Your task to perform on an android device: Show the shopping cart on target. Search for razer blade on target, select the first entry, and add it to the cart. Image 0: 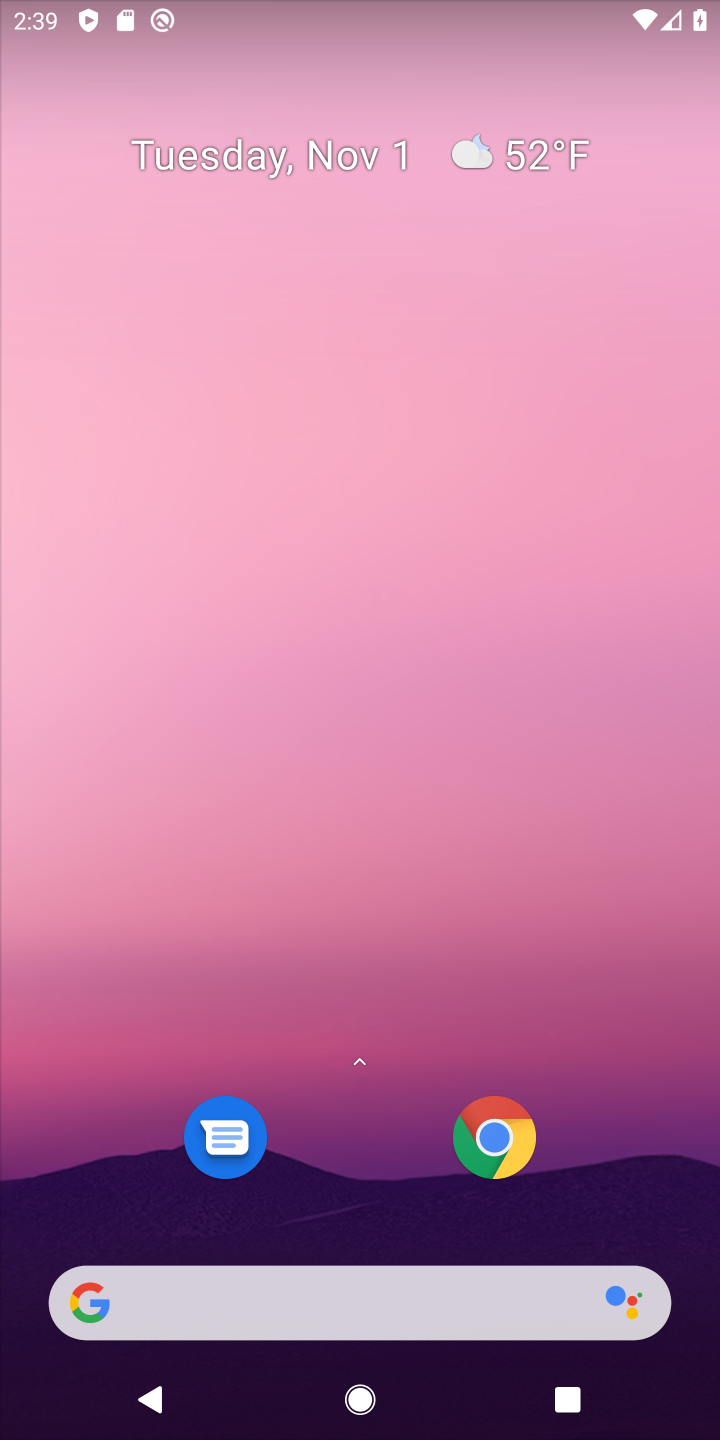
Step 0: click (402, 1273)
Your task to perform on an android device: Show the shopping cart on target. Search for razer blade on target, select the first entry, and add it to the cart. Image 1: 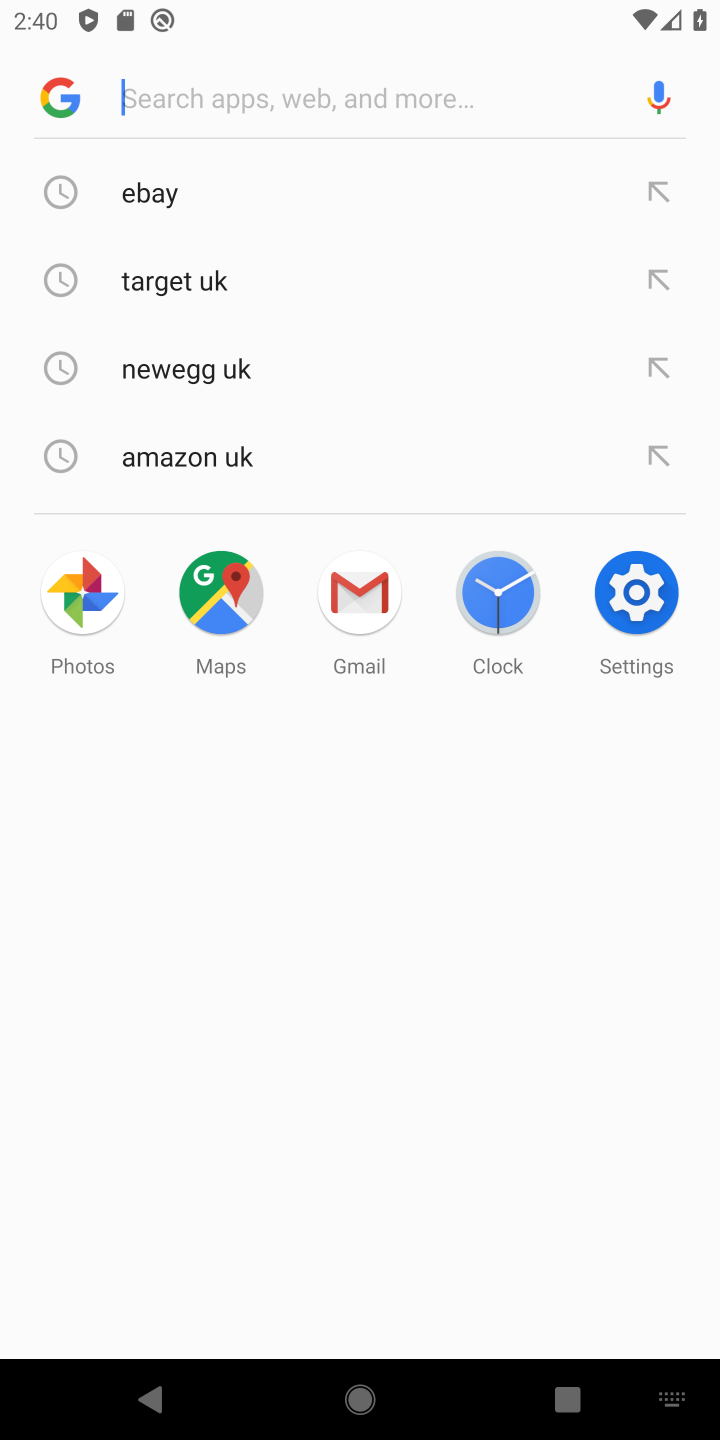
Step 1: type "target"
Your task to perform on an android device: Show the shopping cart on target. Search for razer blade on target, select the first entry, and add it to the cart. Image 2: 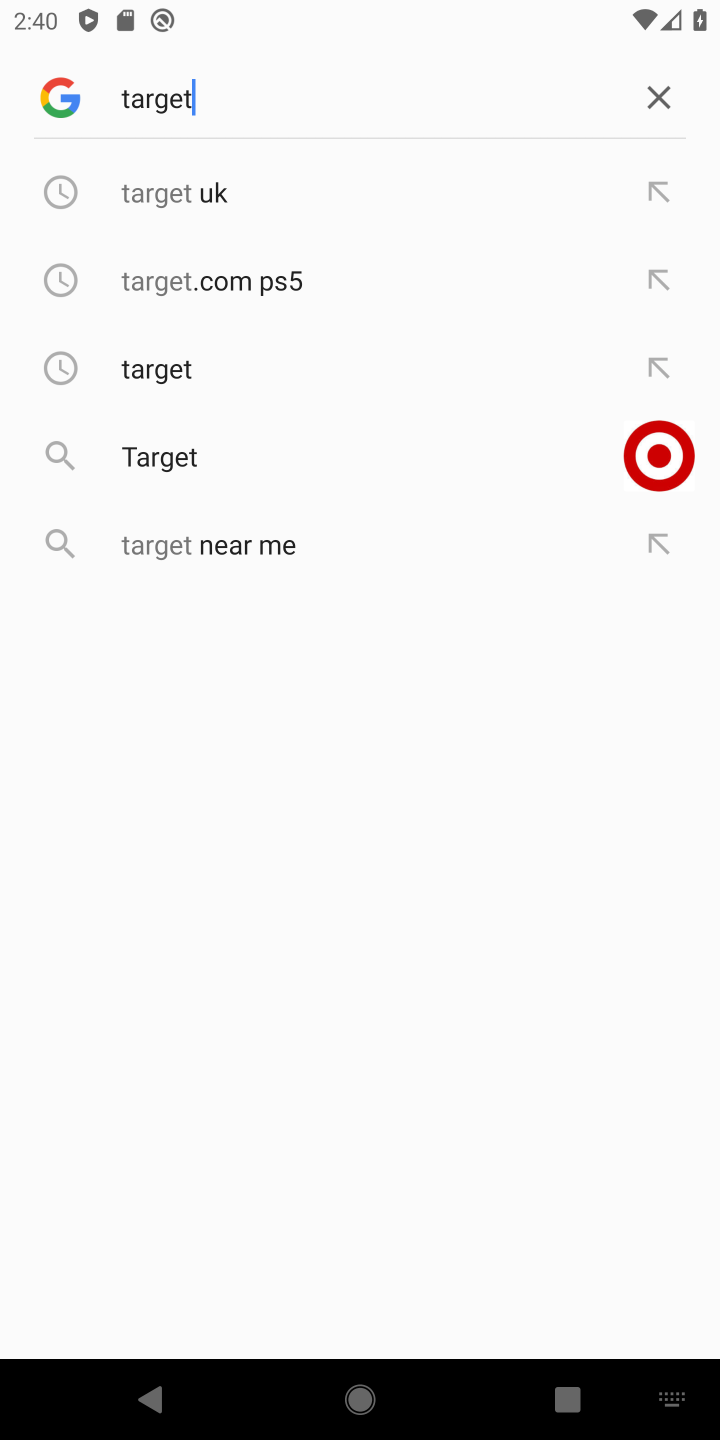
Step 2: click (170, 202)
Your task to perform on an android device: Show the shopping cart on target. Search for razer blade on target, select the first entry, and add it to the cart. Image 3: 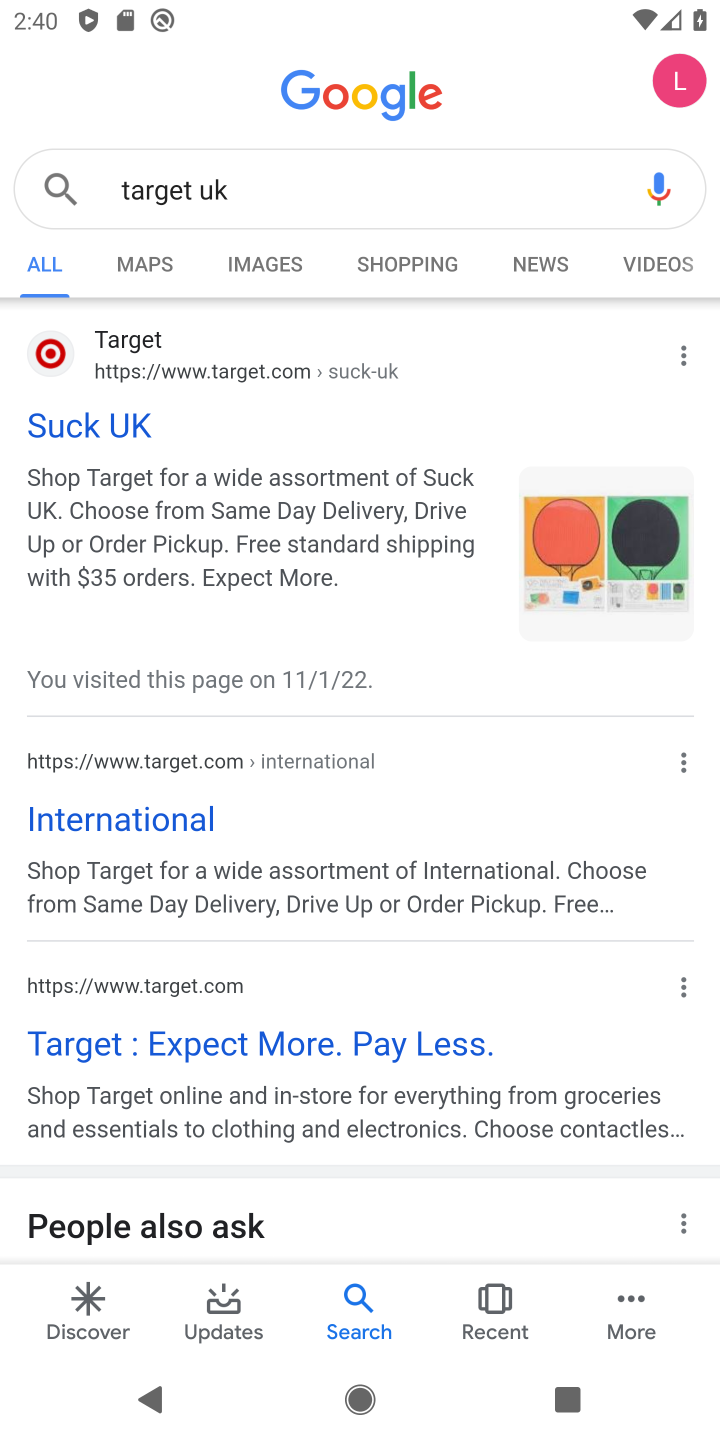
Step 3: click (101, 396)
Your task to perform on an android device: Show the shopping cart on target. Search for razer blade on target, select the first entry, and add it to the cart. Image 4: 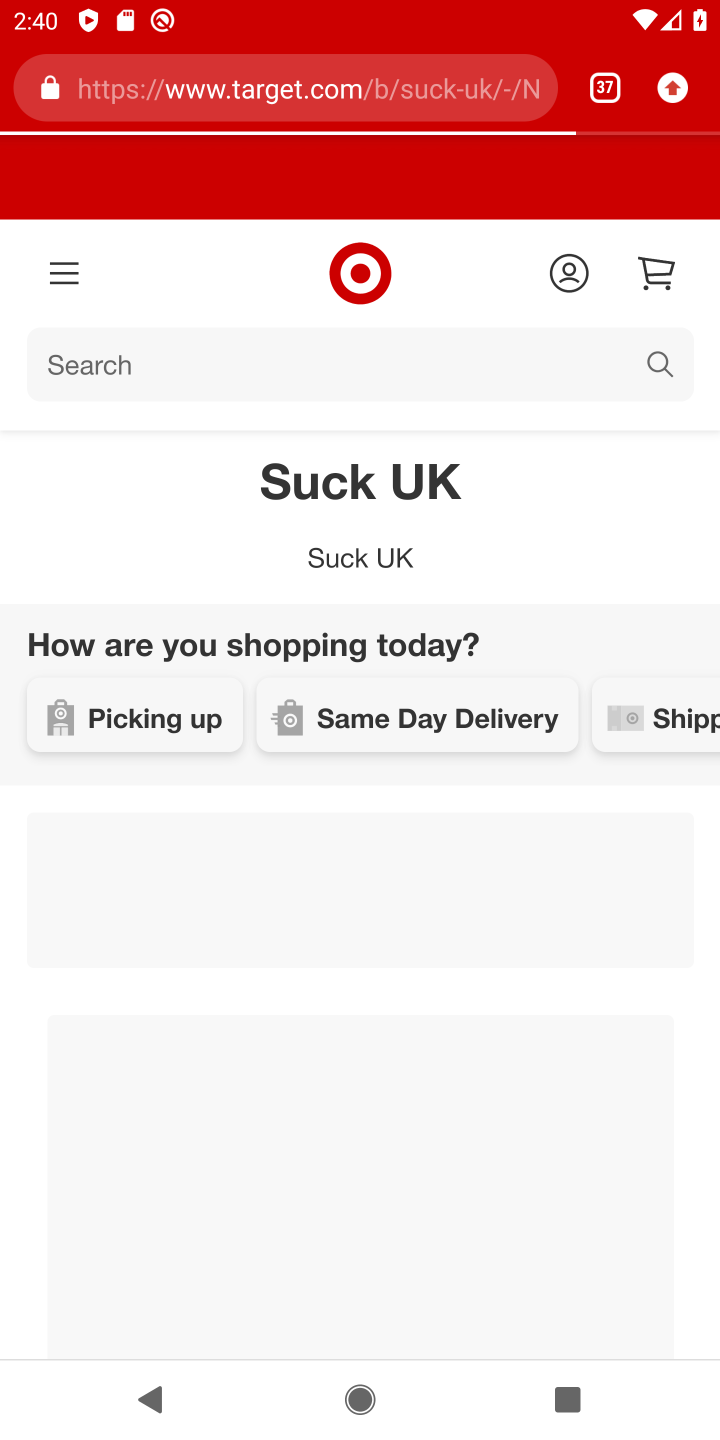
Step 4: click (97, 380)
Your task to perform on an android device: Show the shopping cart on target. Search for razer blade on target, select the first entry, and add it to the cart. Image 5: 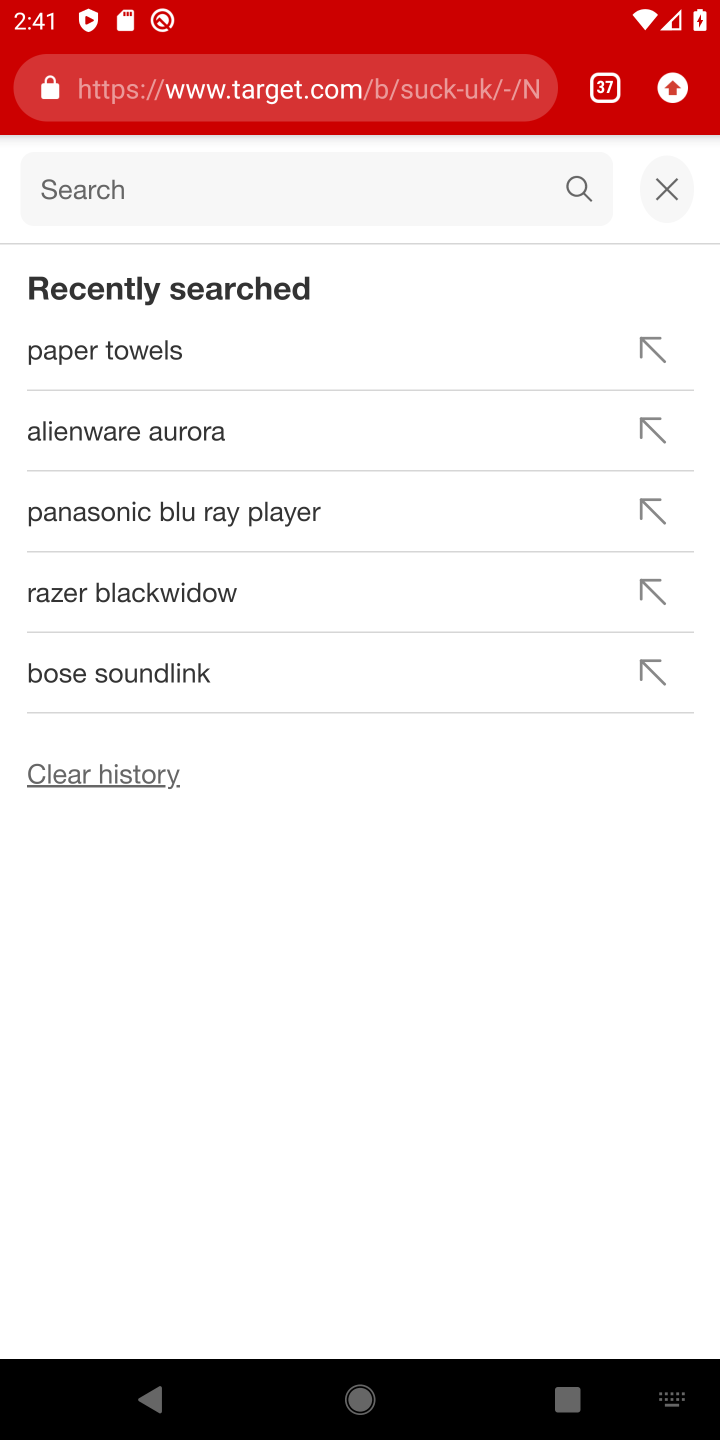
Step 5: task complete